Your task to perform on an android device: Find coffee shops on Maps Image 0: 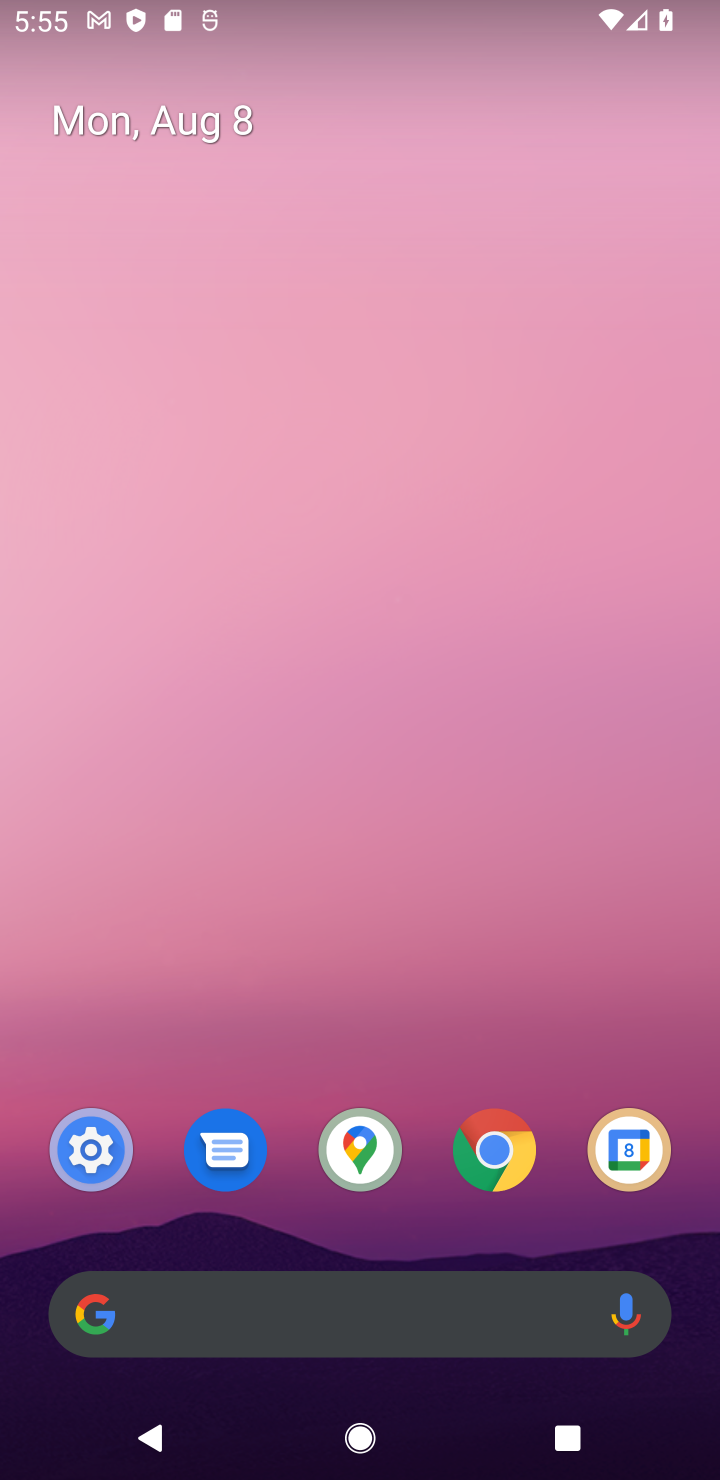
Step 0: click (339, 1143)
Your task to perform on an android device: Find coffee shops on Maps Image 1: 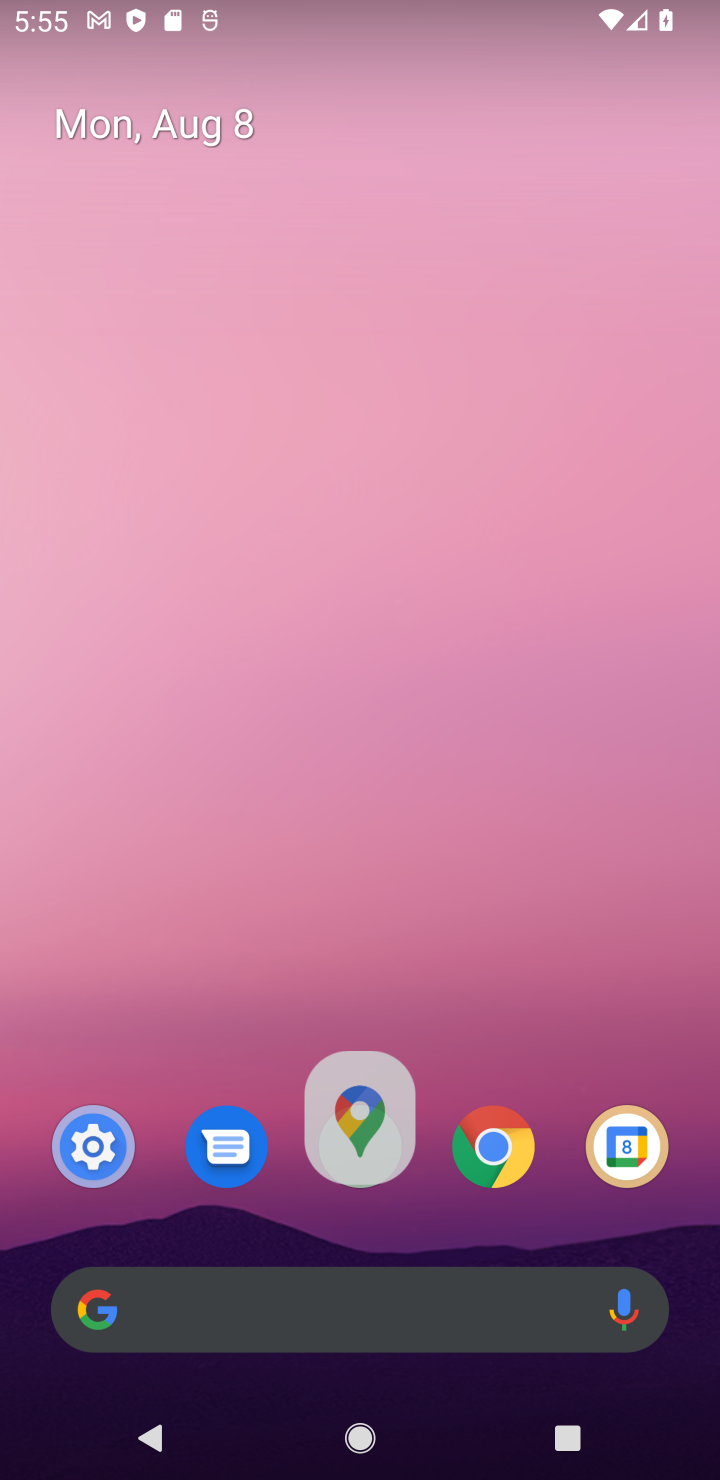
Step 1: task complete